Your task to perform on an android device: turn on javascript in the chrome app Image 0: 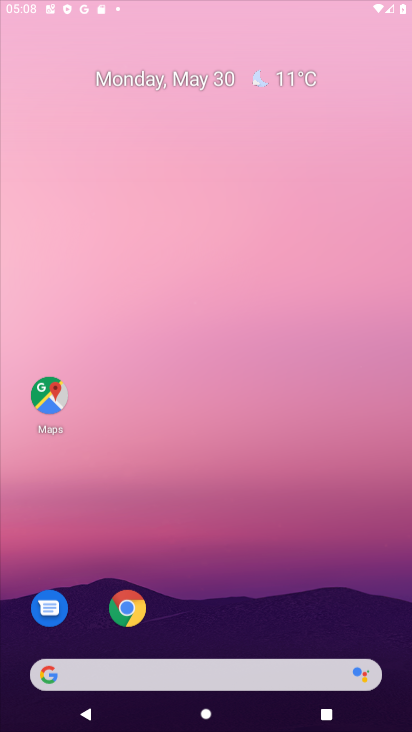
Step 0: drag from (222, 310) to (224, 254)
Your task to perform on an android device: turn on javascript in the chrome app Image 1: 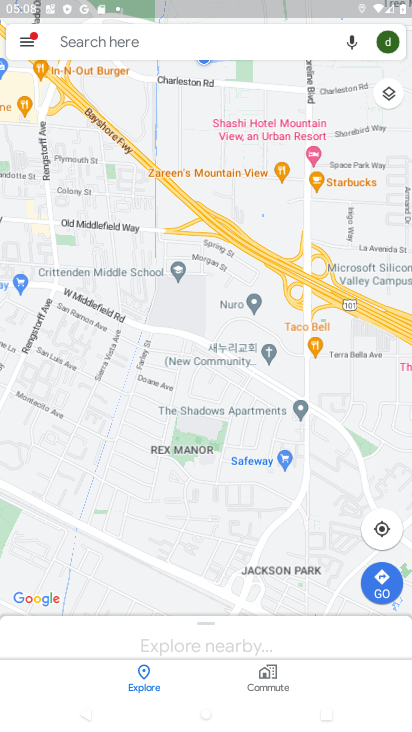
Step 1: press home button
Your task to perform on an android device: turn on javascript in the chrome app Image 2: 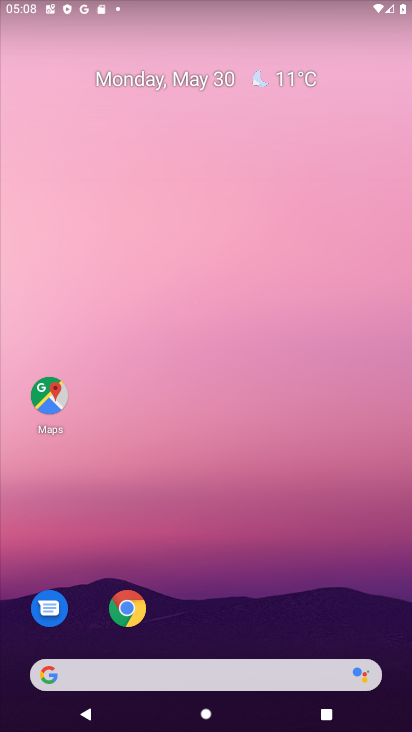
Step 2: click (127, 614)
Your task to perform on an android device: turn on javascript in the chrome app Image 3: 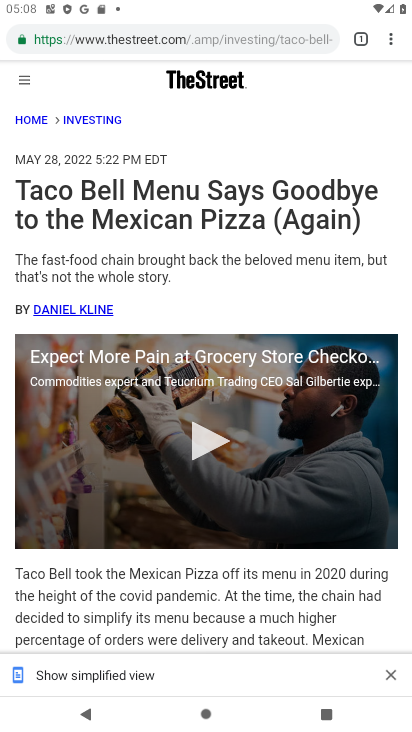
Step 3: click (393, 38)
Your task to perform on an android device: turn on javascript in the chrome app Image 4: 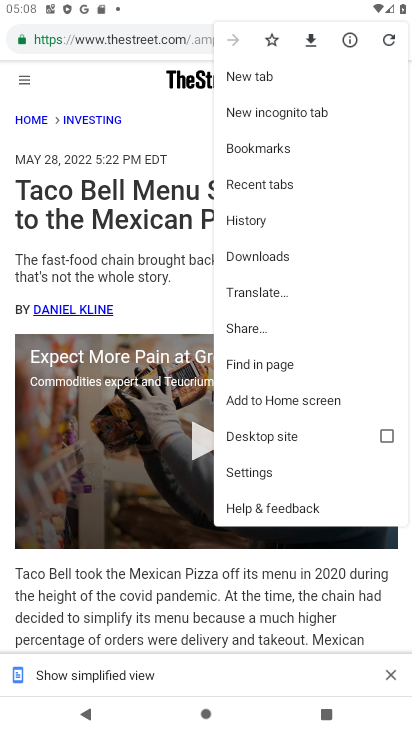
Step 4: click (261, 469)
Your task to perform on an android device: turn on javascript in the chrome app Image 5: 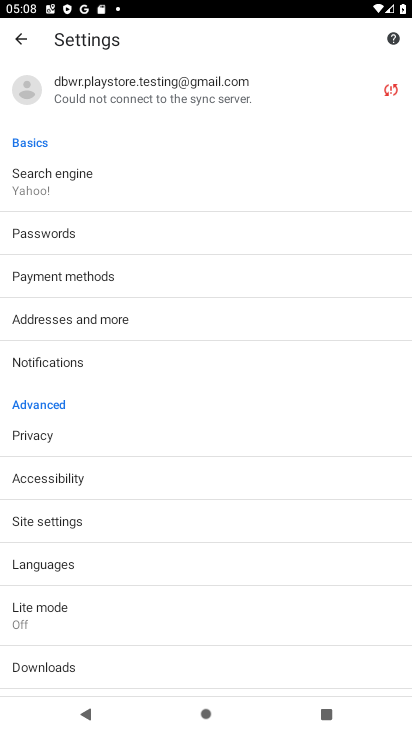
Step 5: drag from (76, 500) to (124, 271)
Your task to perform on an android device: turn on javascript in the chrome app Image 6: 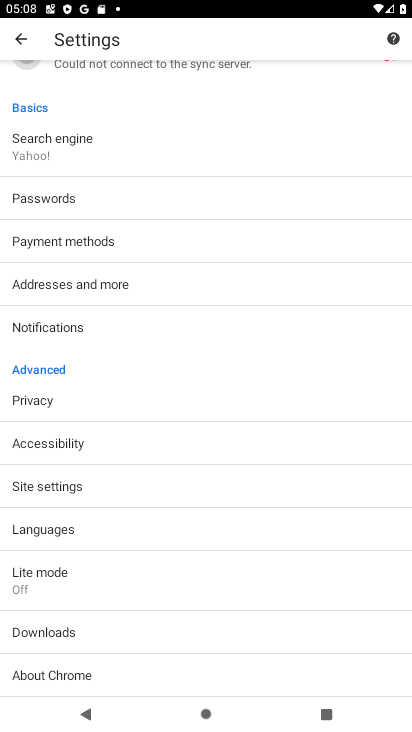
Step 6: click (32, 487)
Your task to perform on an android device: turn on javascript in the chrome app Image 7: 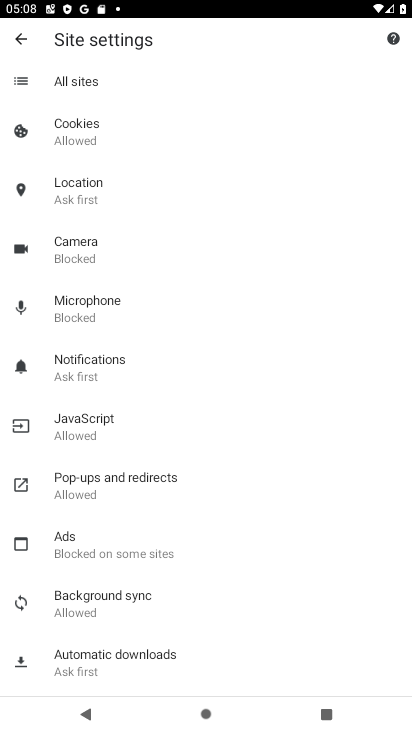
Step 7: click (77, 425)
Your task to perform on an android device: turn on javascript in the chrome app Image 8: 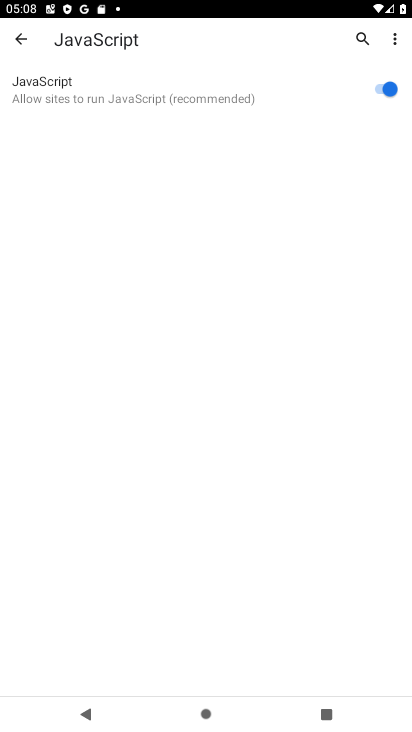
Step 8: task complete